Your task to perform on an android device: Open Google Image 0: 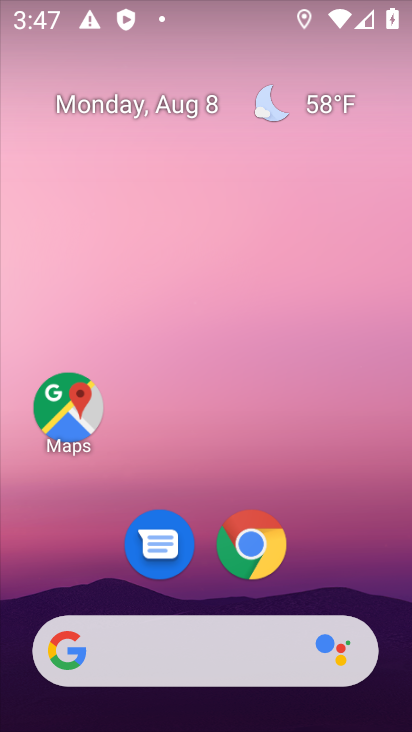
Step 0: drag from (254, 636) to (297, 106)
Your task to perform on an android device: Open Google Image 1: 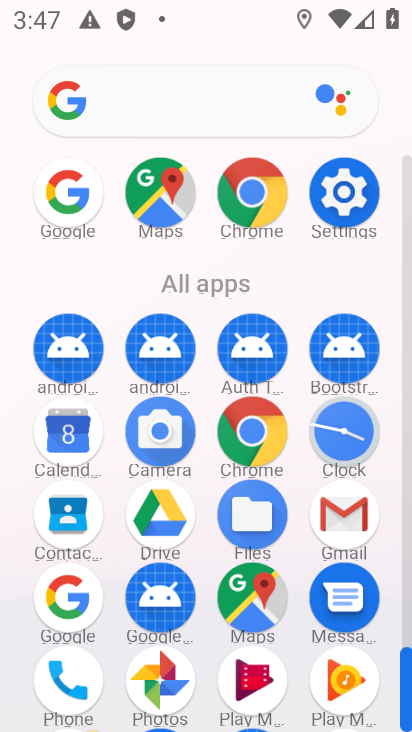
Step 1: click (91, 603)
Your task to perform on an android device: Open Google Image 2: 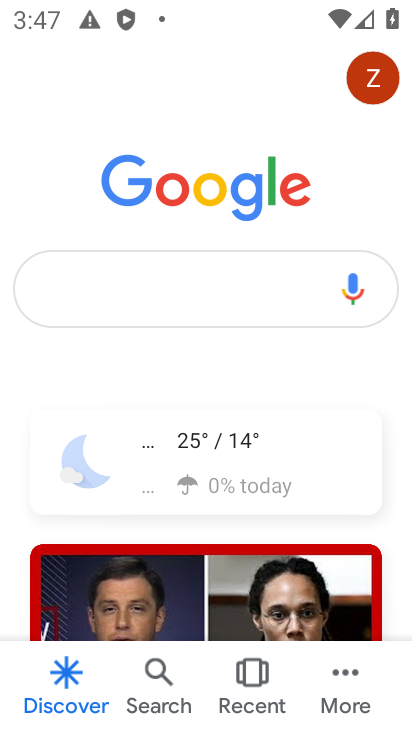
Step 2: task complete